Your task to perform on an android device: Add "lg ultragear" to the cart on bestbuy, then select checkout. Image 0: 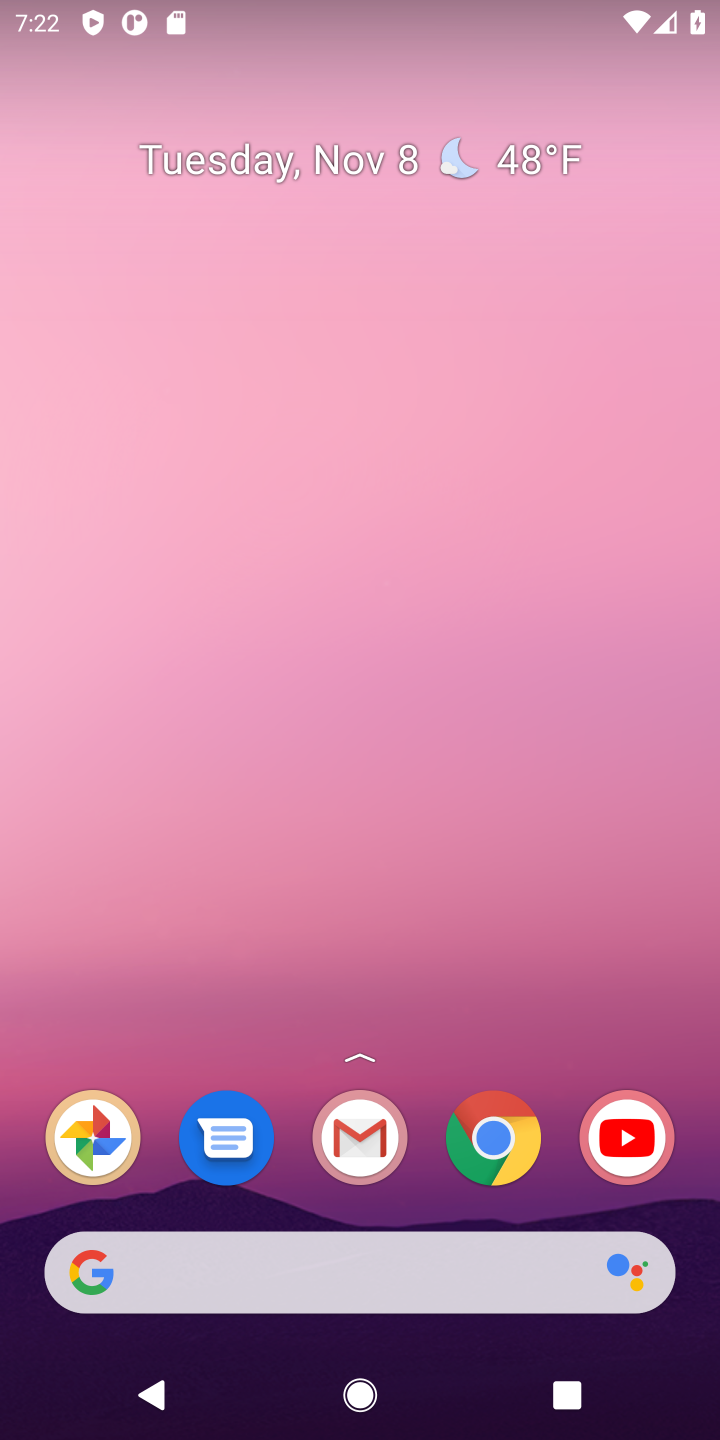
Step 0: click (492, 1133)
Your task to perform on an android device: Add "lg ultragear" to the cart on bestbuy, then select checkout. Image 1: 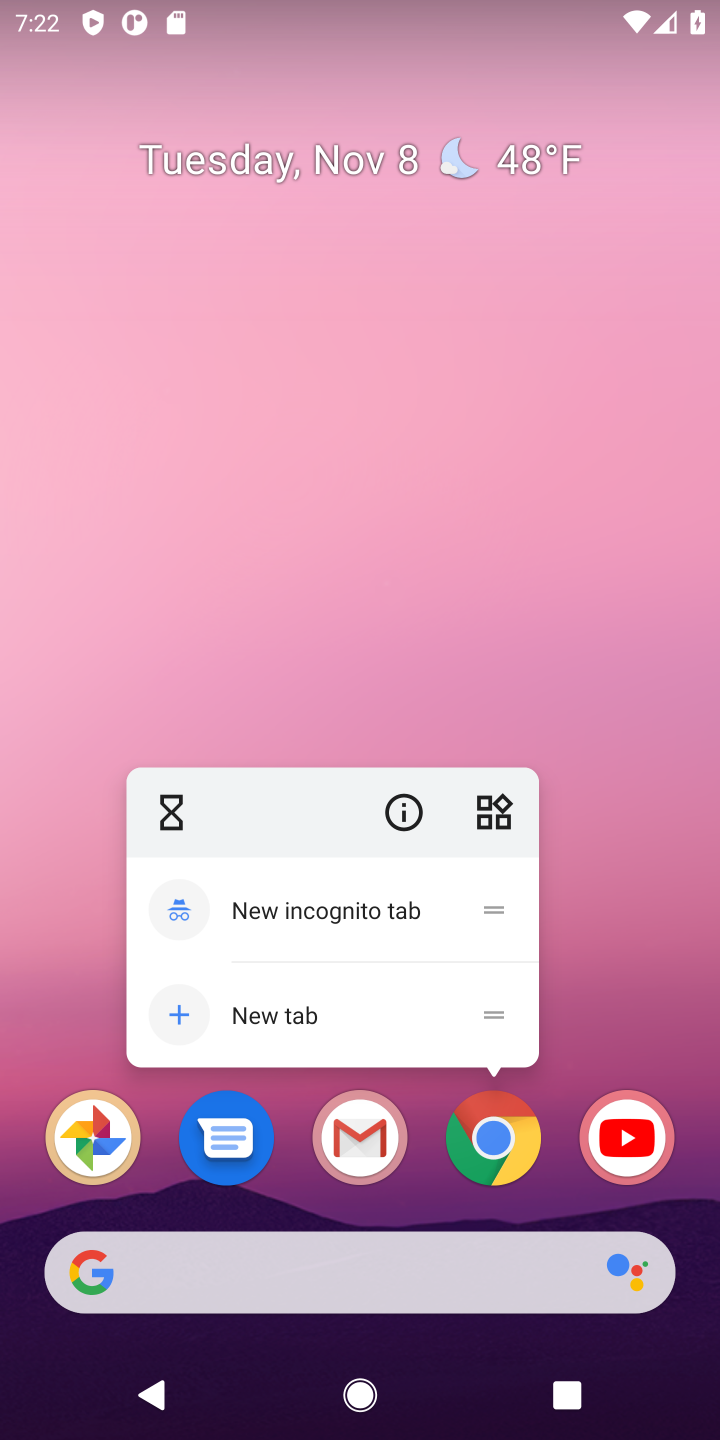
Step 1: click (492, 1142)
Your task to perform on an android device: Add "lg ultragear" to the cart on bestbuy, then select checkout. Image 2: 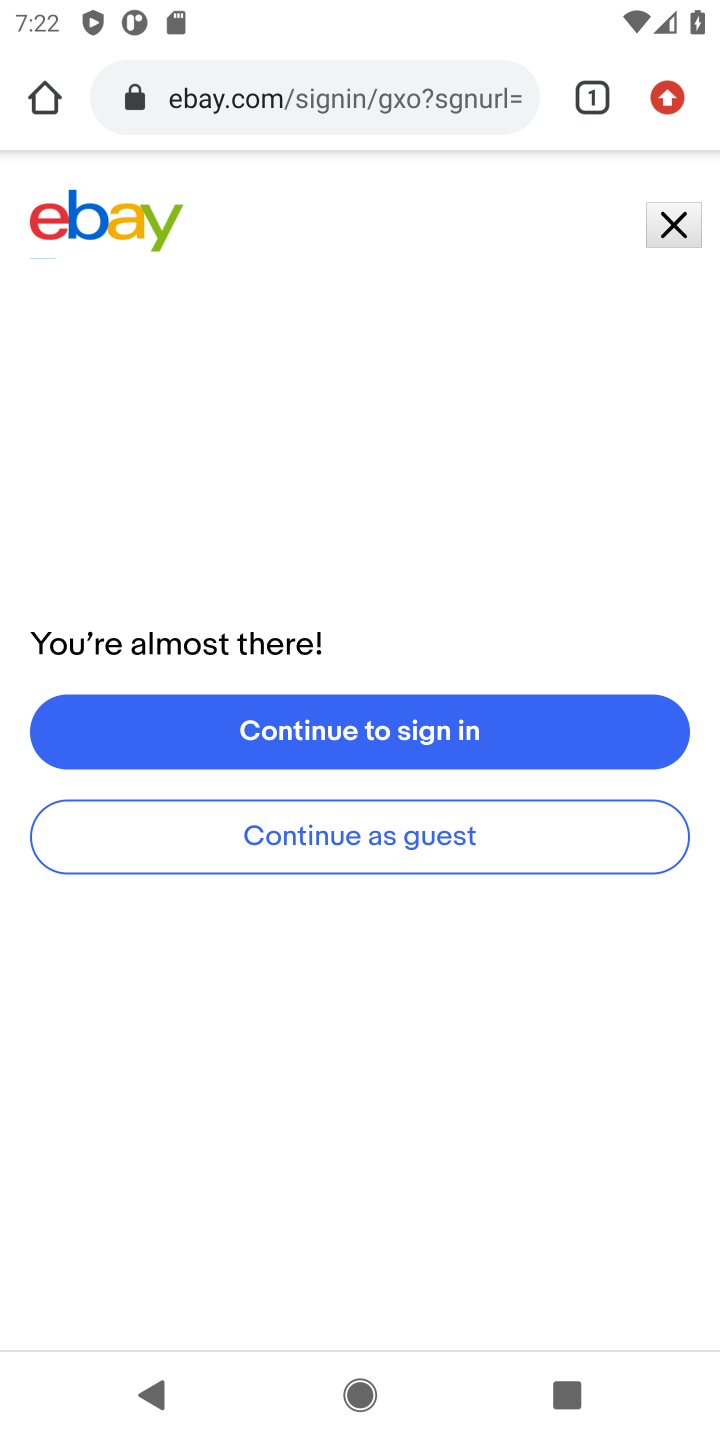
Step 2: click (304, 91)
Your task to perform on an android device: Add "lg ultragear" to the cart on bestbuy, then select checkout. Image 3: 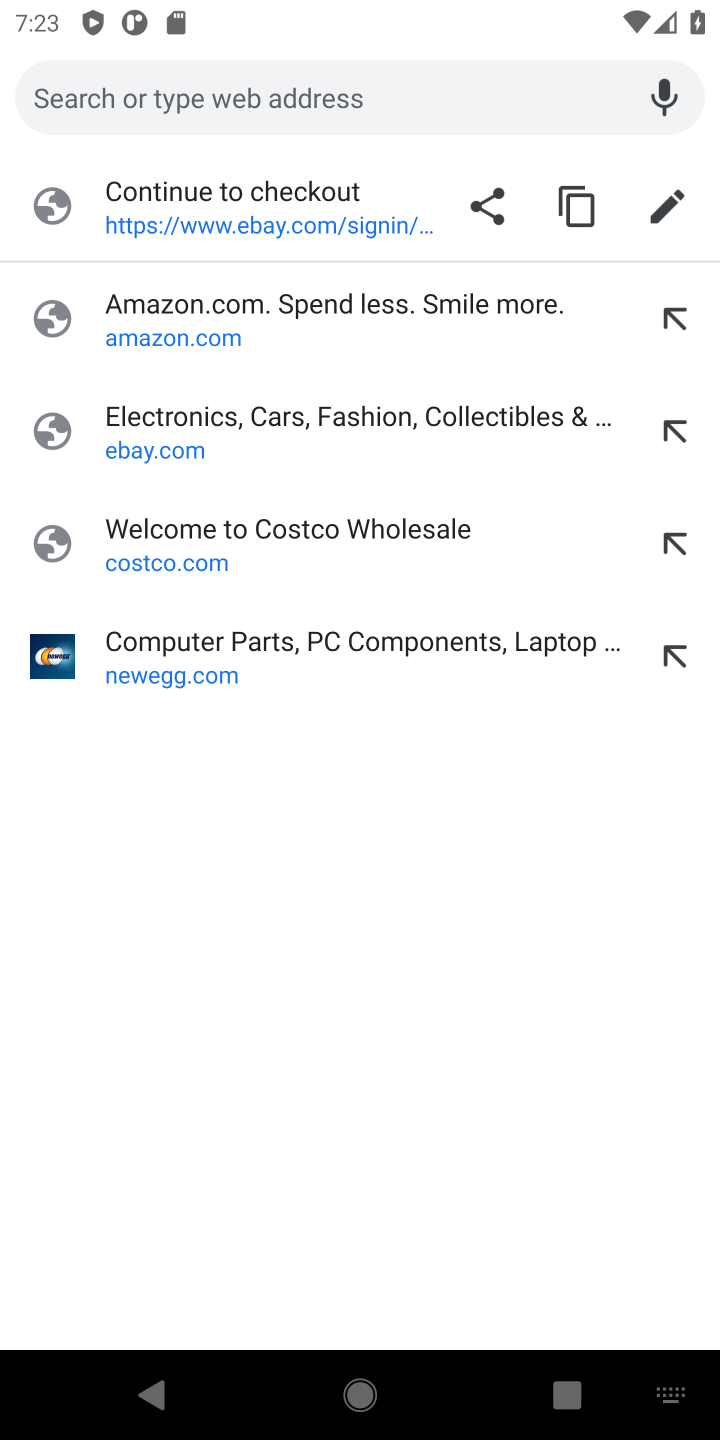
Step 3: type "bestbuy"
Your task to perform on an android device: Add "lg ultragear" to the cart on bestbuy, then select checkout. Image 4: 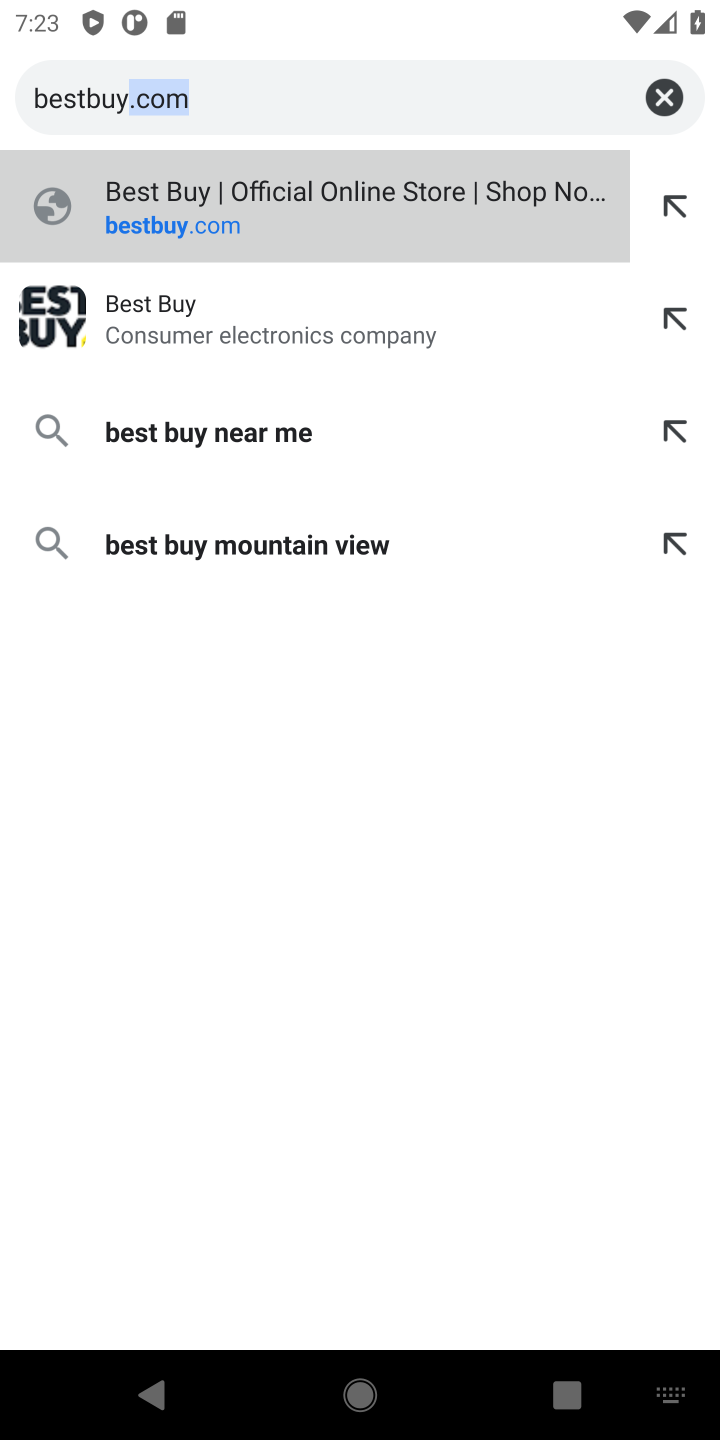
Step 4: press enter
Your task to perform on an android device: Add "lg ultragear" to the cart on bestbuy, then select checkout. Image 5: 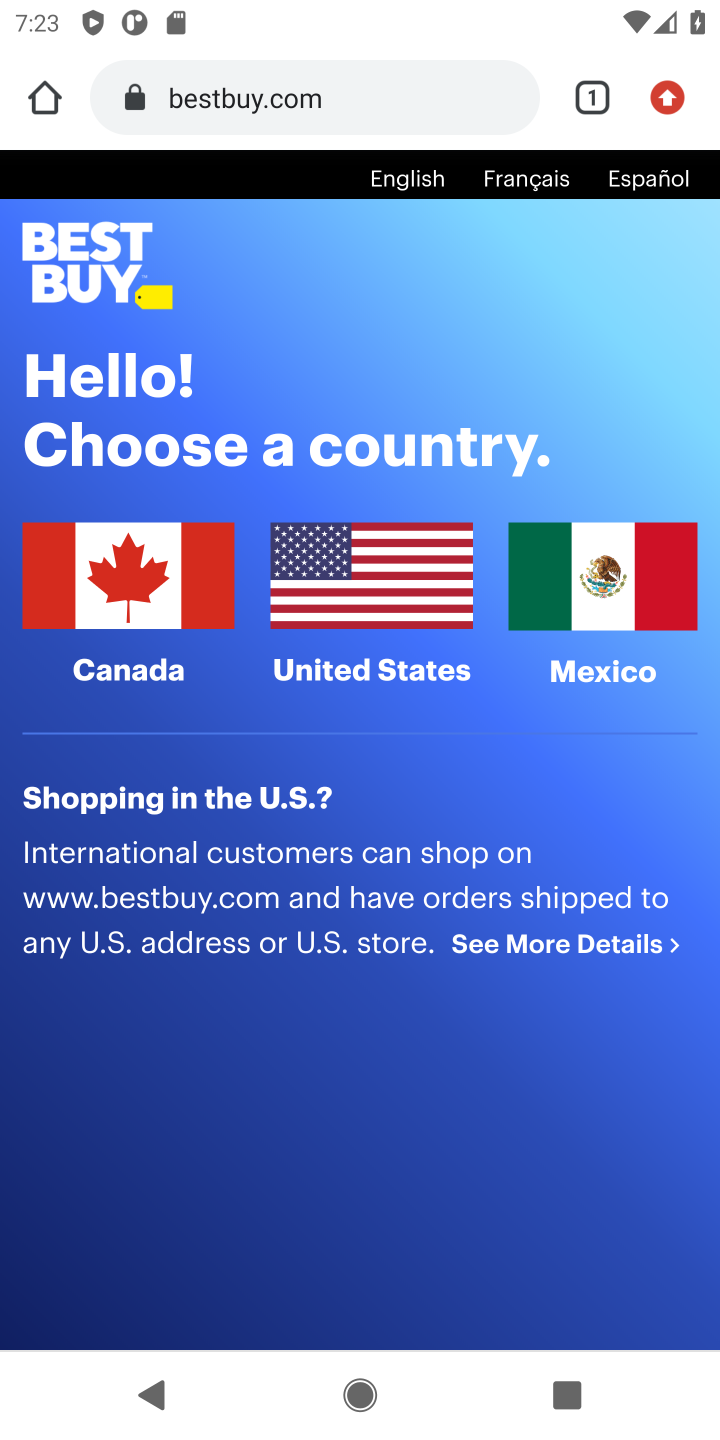
Step 5: click (118, 618)
Your task to perform on an android device: Add "lg ultragear" to the cart on bestbuy, then select checkout. Image 6: 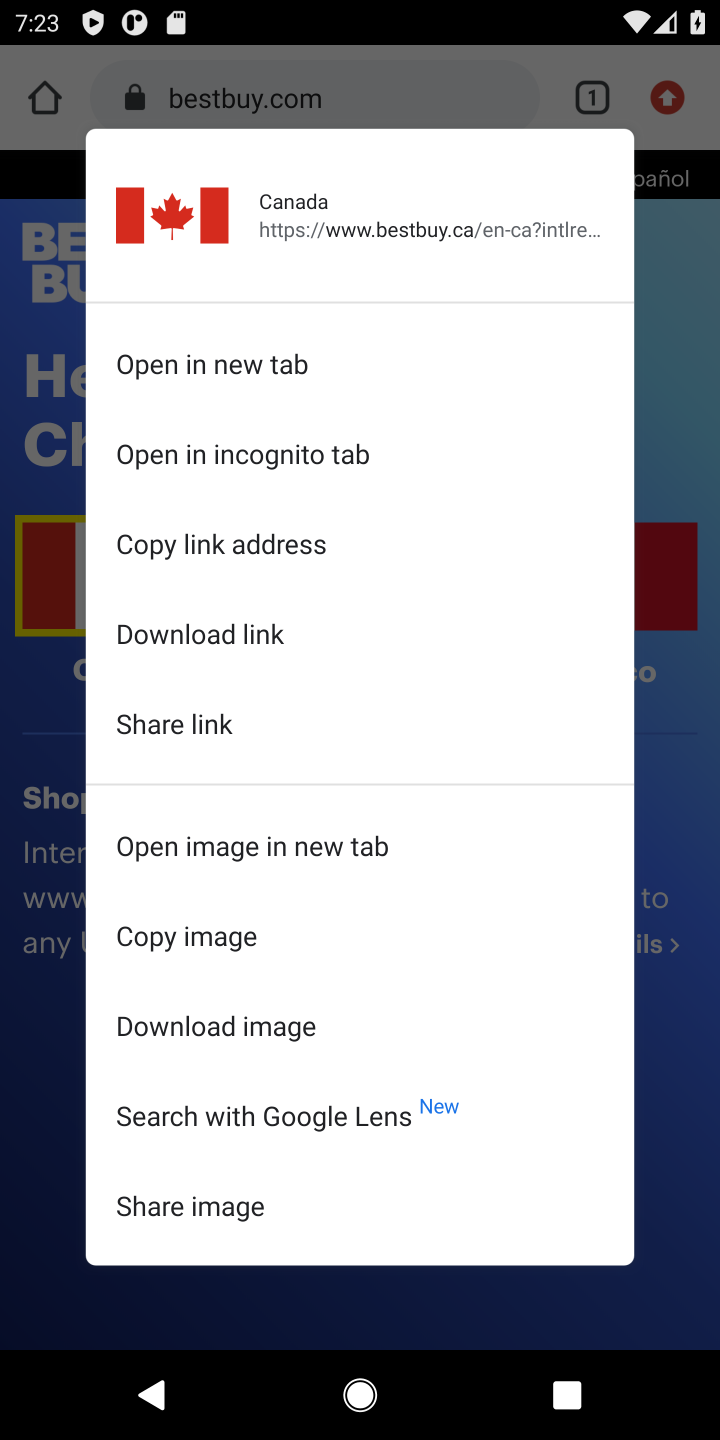
Step 6: click (45, 582)
Your task to perform on an android device: Add "lg ultragear" to the cart on bestbuy, then select checkout. Image 7: 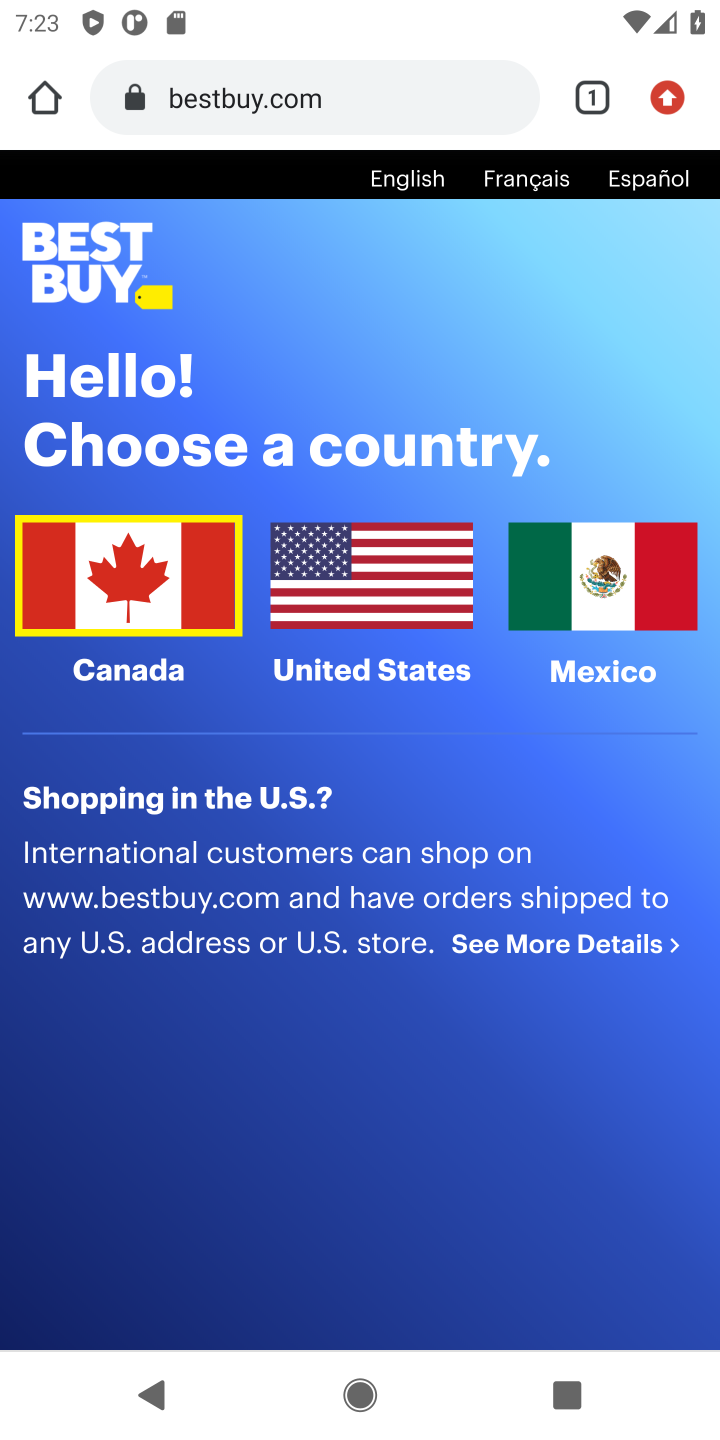
Step 7: click (140, 665)
Your task to perform on an android device: Add "lg ultragear" to the cart on bestbuy, then select checkout. Image 8: 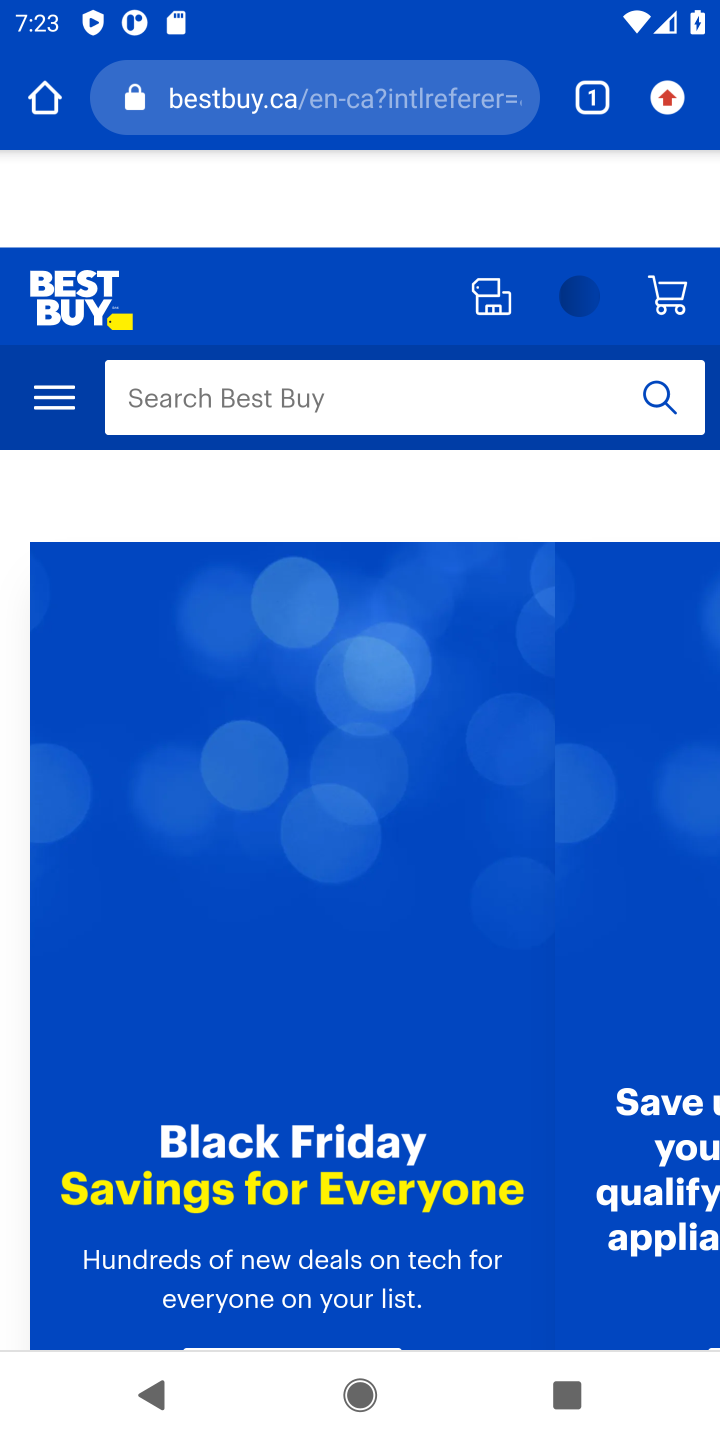
Step 8: click (258, 393)
Your task to perform on an android device: Add "lg ultragear" to the cart on bestbuy, then select checkout. Image 9: 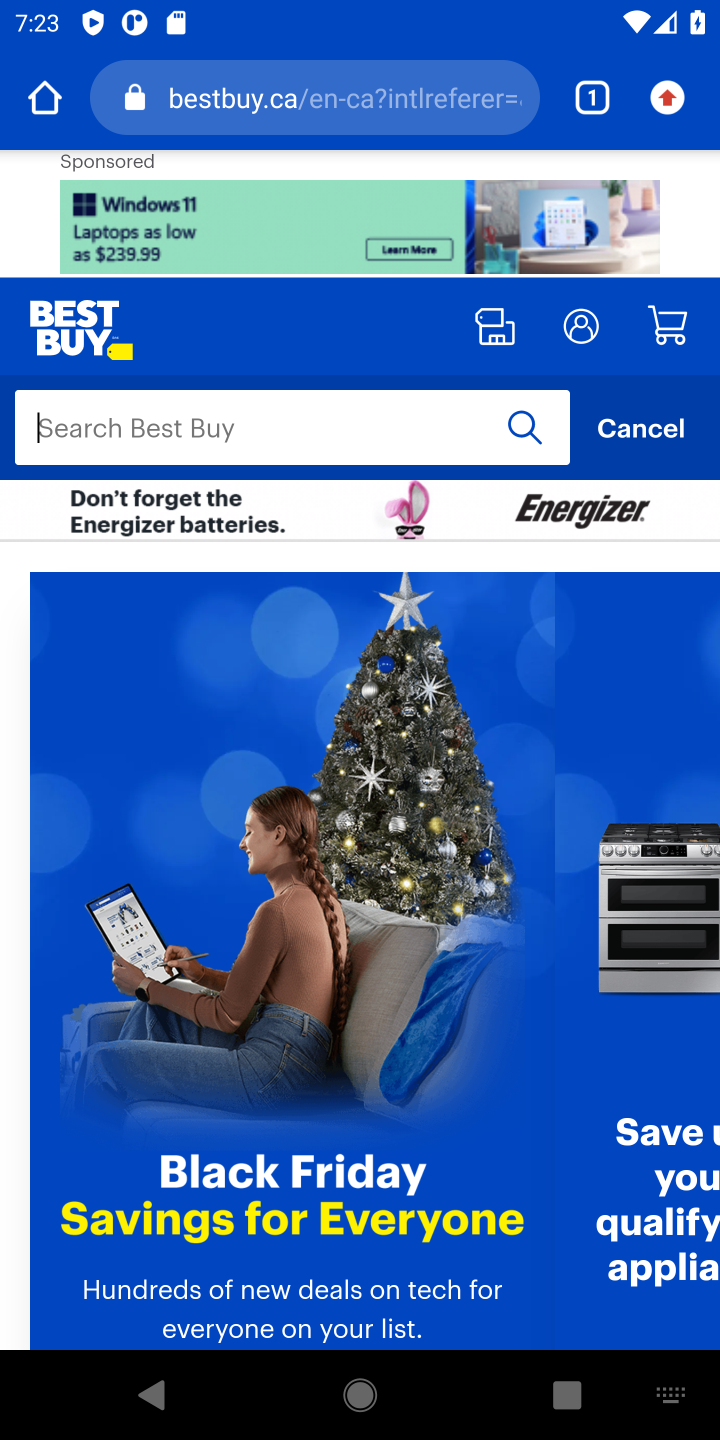
Step 9: press enter
Your task to perform on an android device: Add "lg ultragear" to the cart on bestbuy, then select checkout. Image 10: 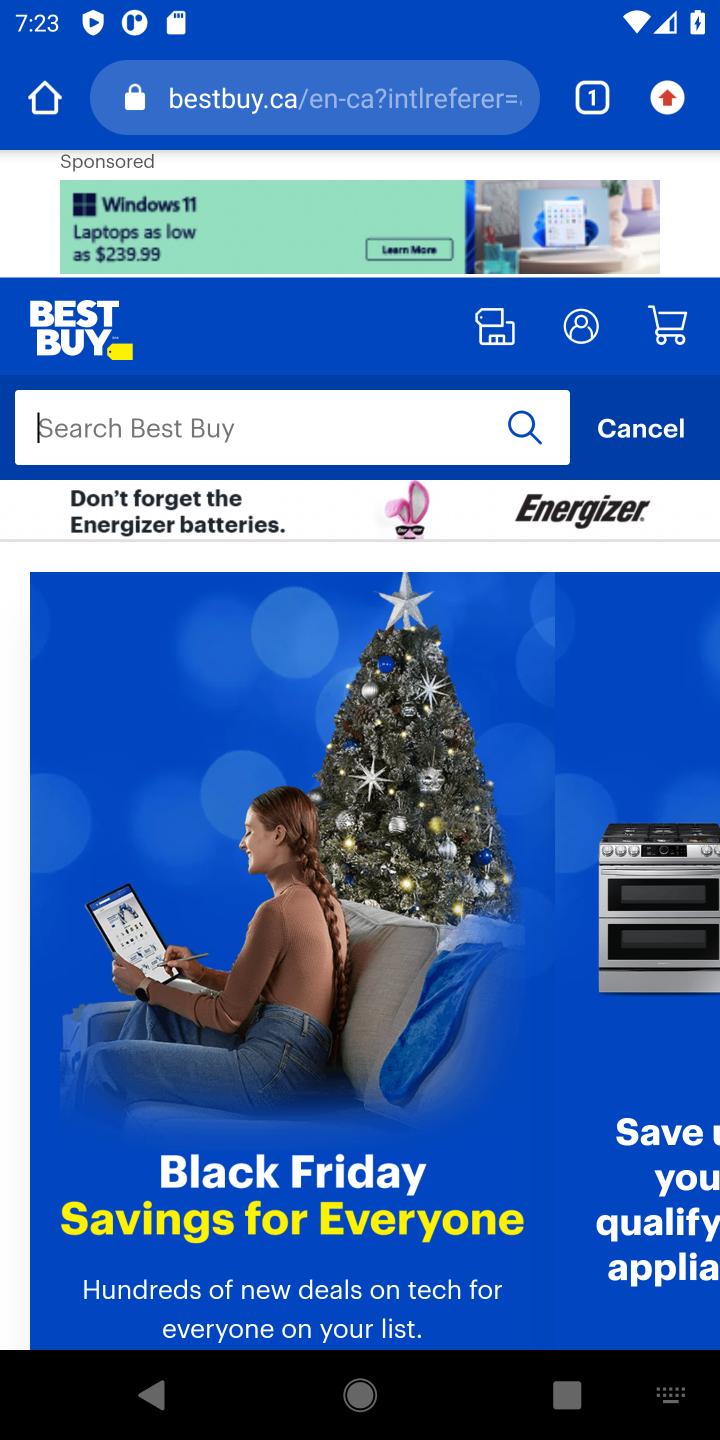
Step 10: type "lg ultragear"
Your task to perform on an android device: Add "lg ultragear" to the cart on bestbuy, then select checkout. Image 11: 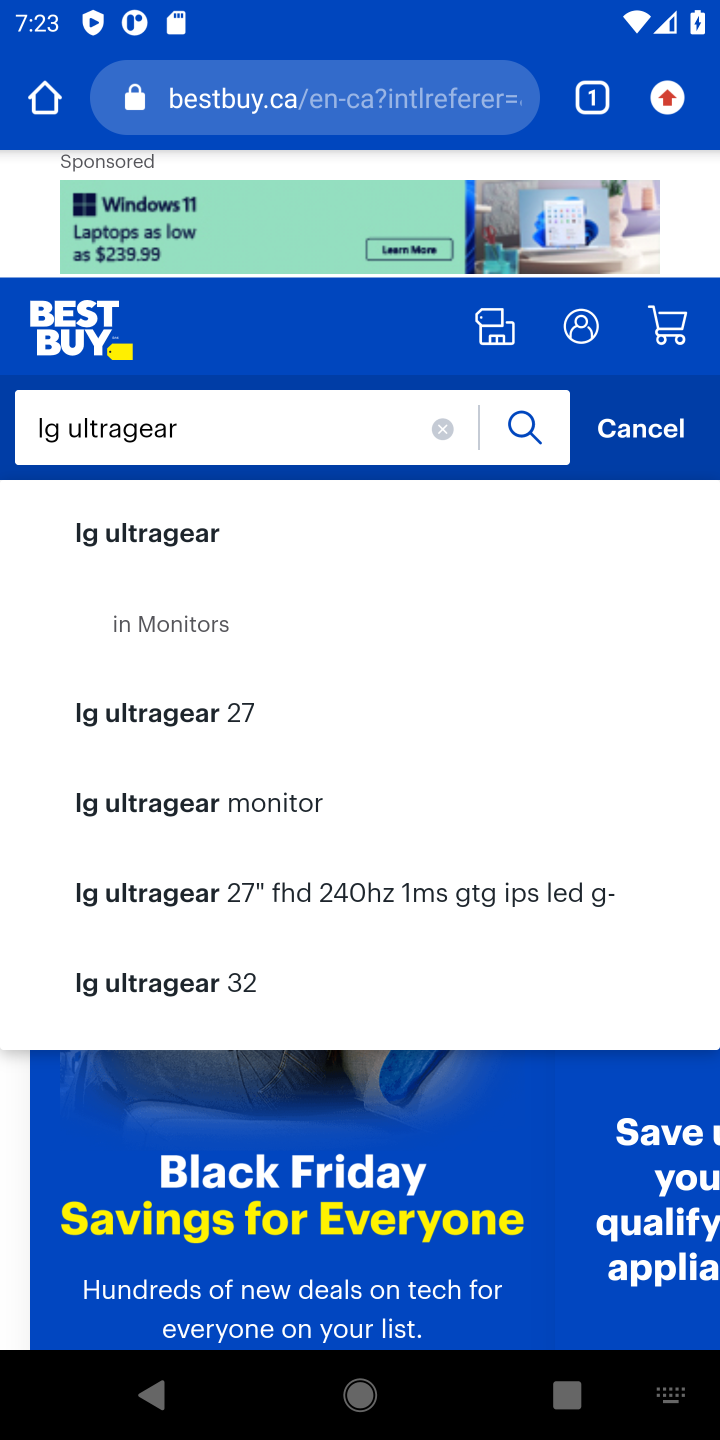
Step 11: press enter
Your task to perform on an android device: Add "lg ultragear" to the cart on bestbuy, then select checkout. Image 12: 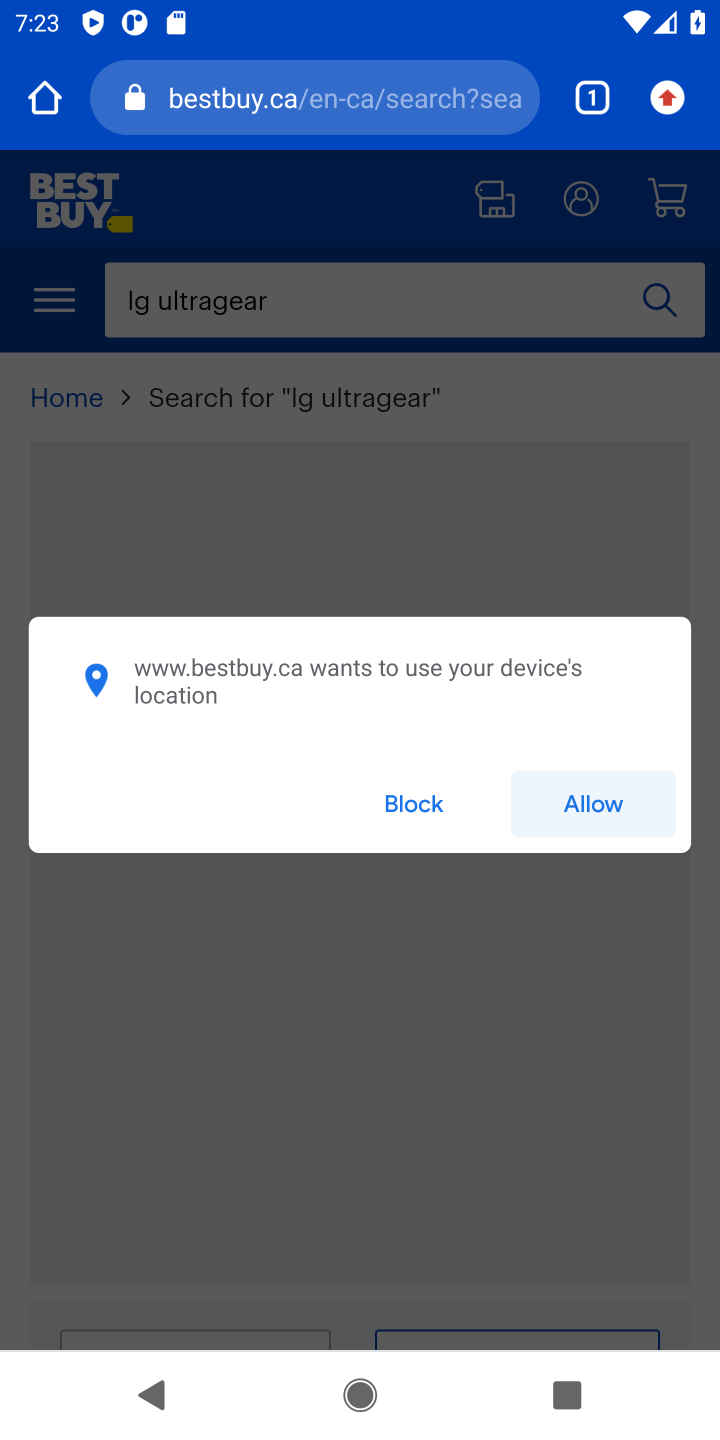
Step 12: click (416, 801)
Your task to perform on an android device: Add "lg ultragear" to the cart on bestbuy, then select checkout. Image 13: 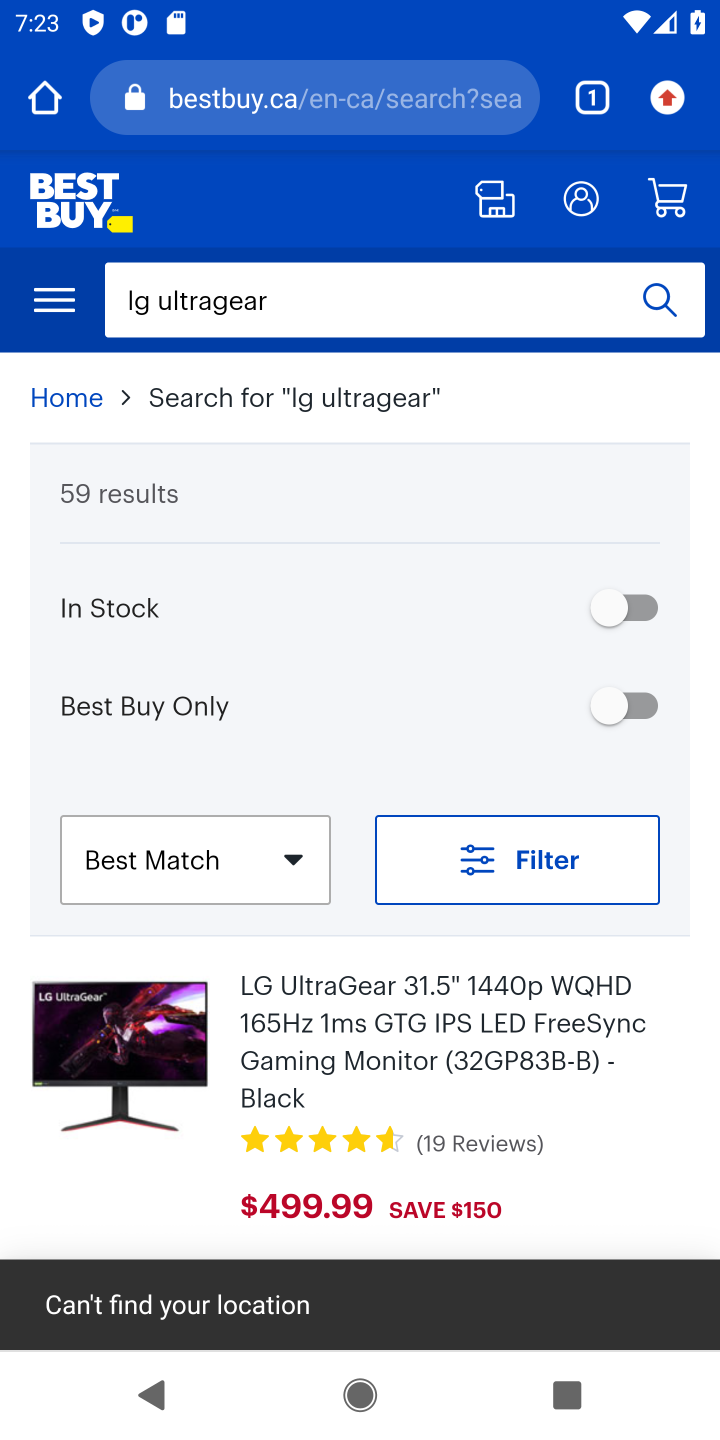
Step 13: drag from (268, 1114) to (424, 574)
Your task to perform on an android device: Add "lg ultragear" to the cart on bestbuy, then select checkout. Image 14: 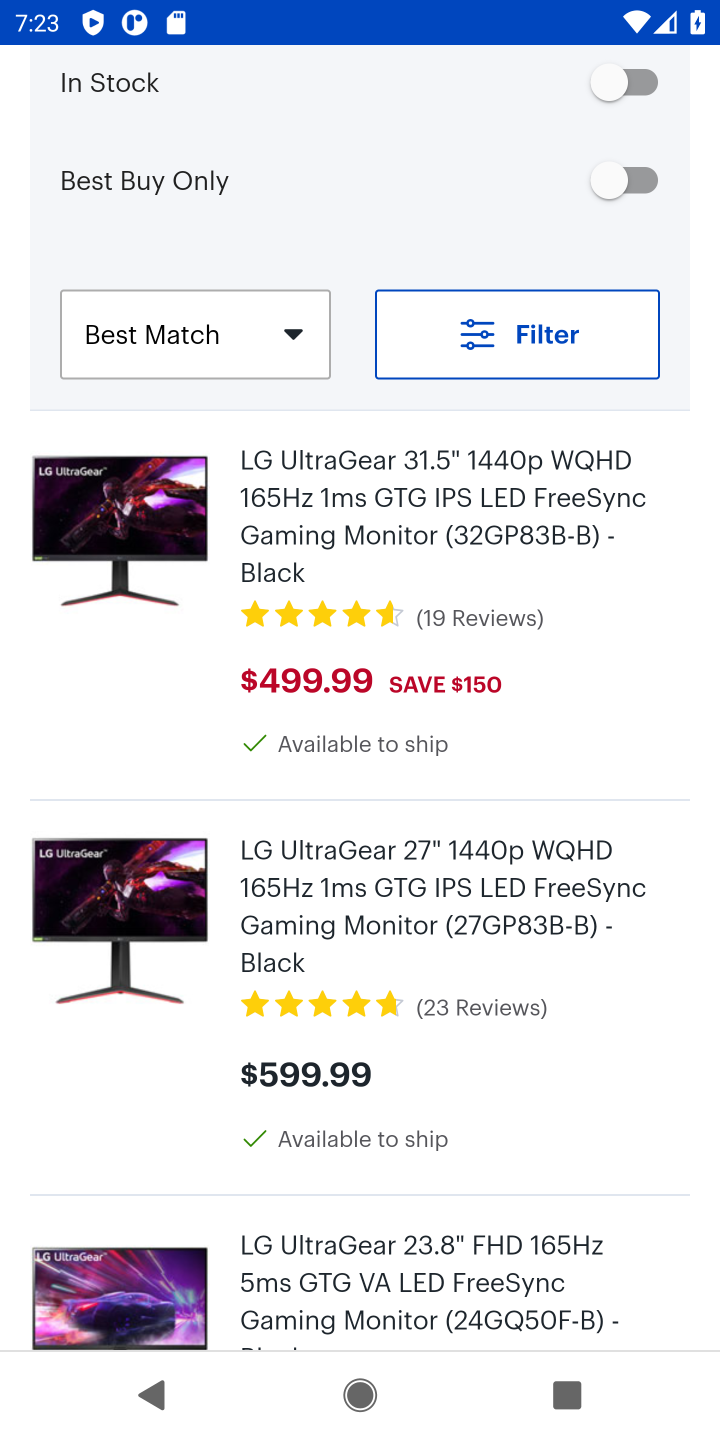
Step 14: click (388, 536)
Your task to perform on an android device: Add "lg ultragear" to the cart on bestbuy, then select checkout. Image 15: 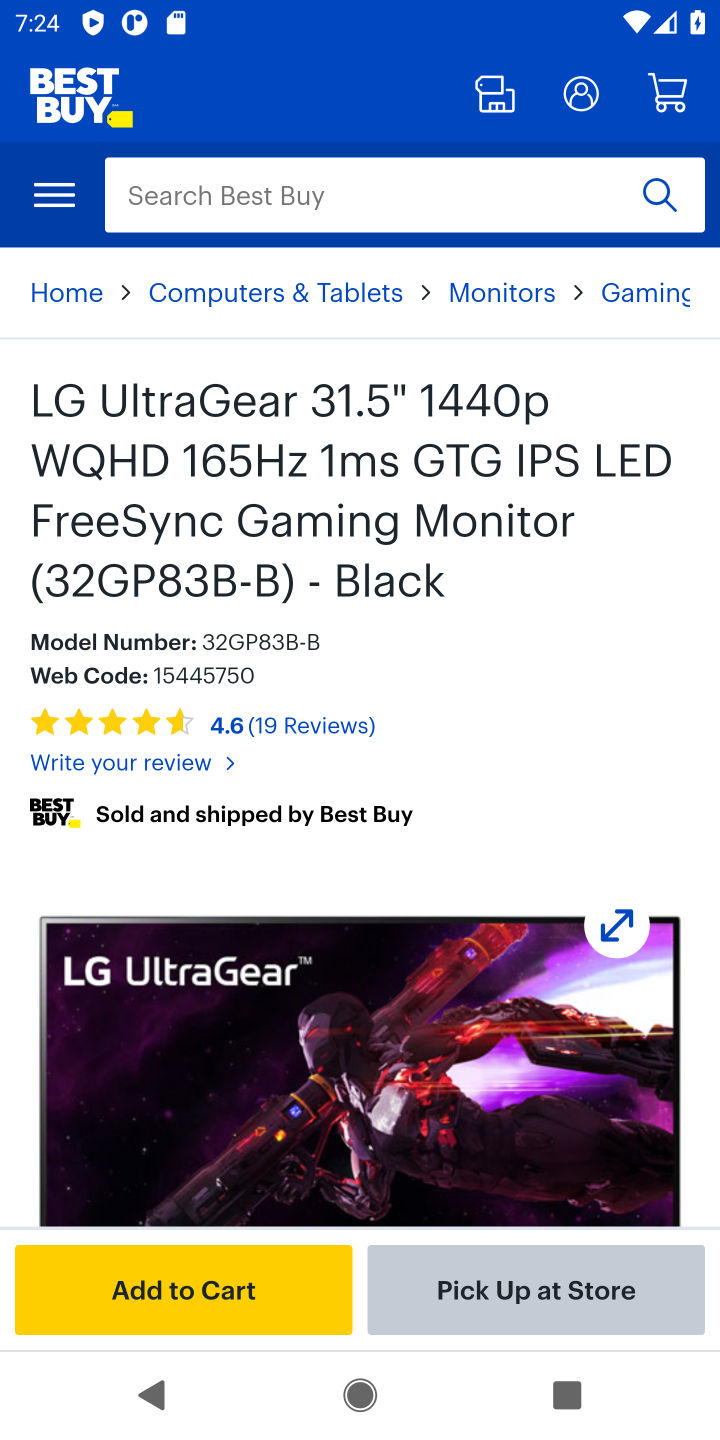
Step 15: drag from (299, 1091) to (590, 233)
Your task to perform on an android device: Add "lg ultragear" to the cart on bestbuy, then select checkout. Image 16: 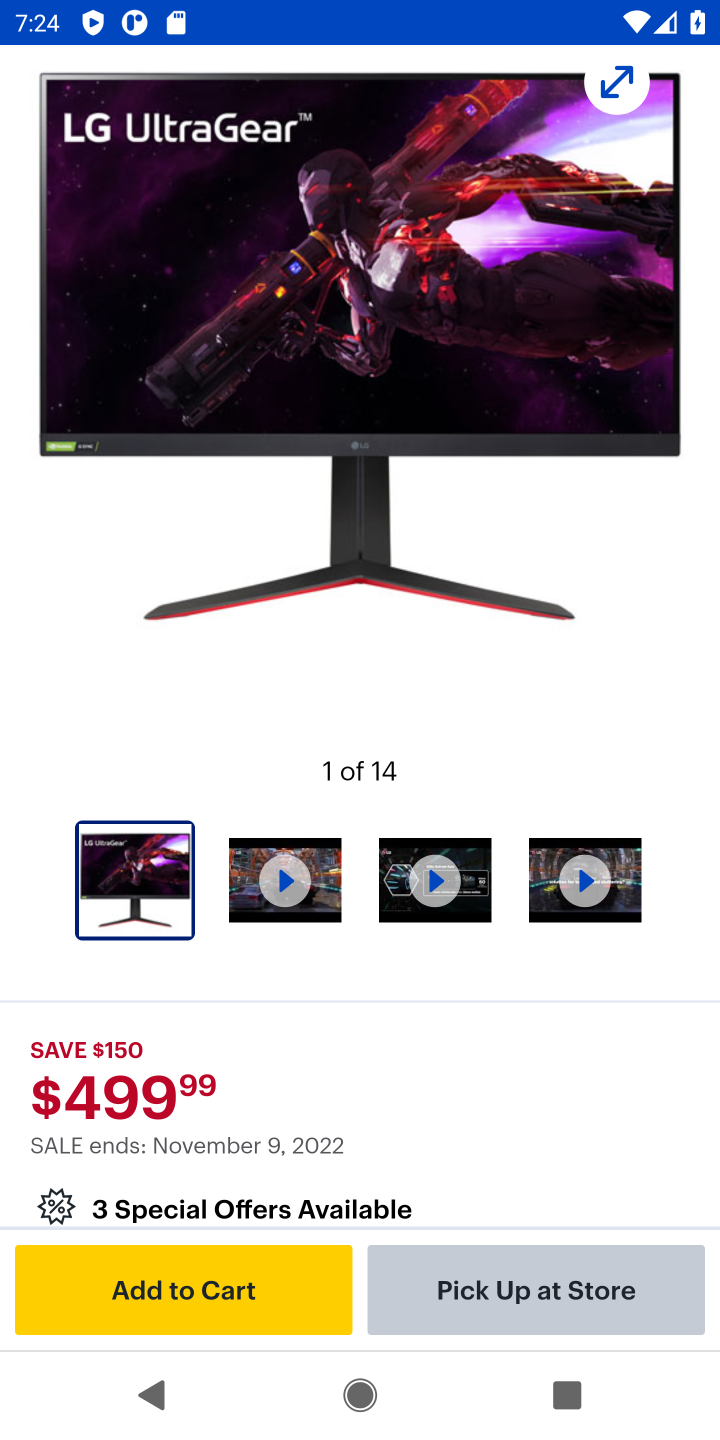
Step 16: drag from (371, 1116) to (450, 642)
Your task to perform on an android device: Add "lg ultragear" to the cart on bestbuy, then select checkout. Image 17: 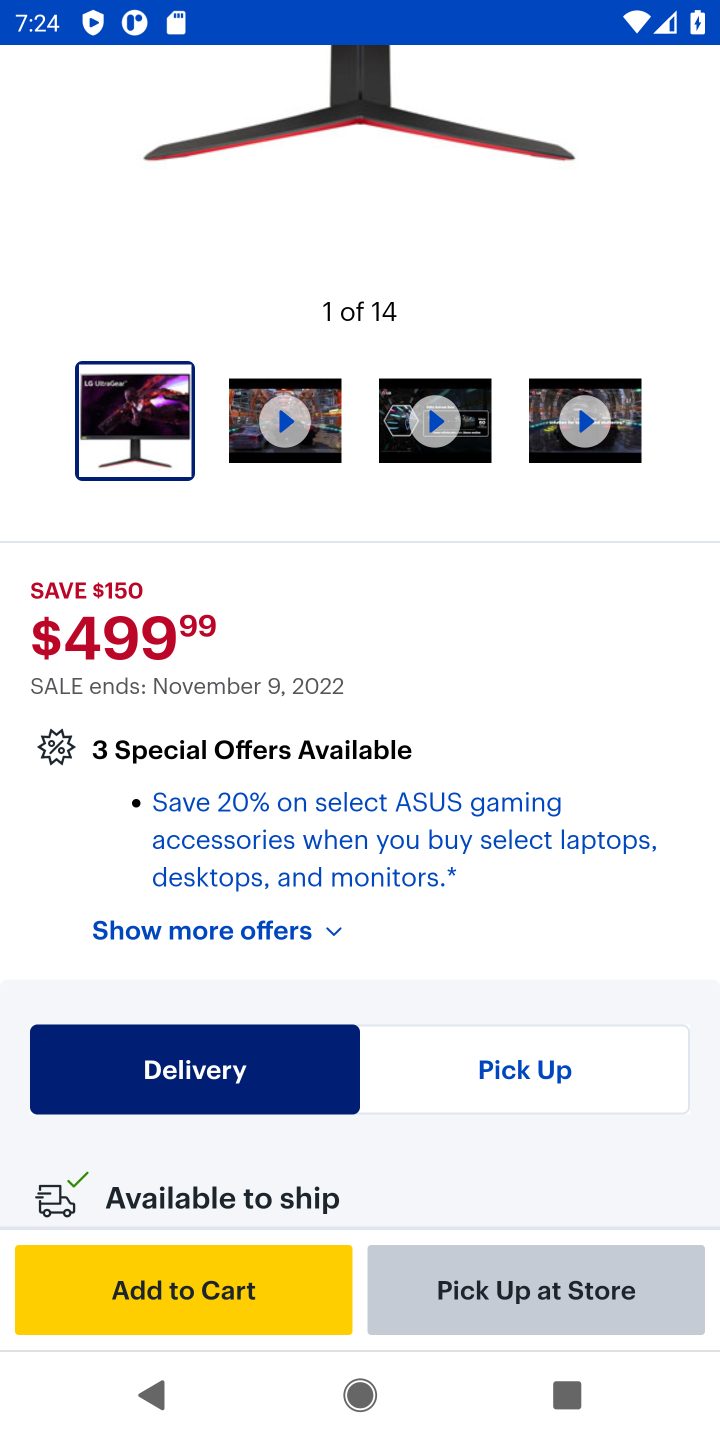
Step 17: click (188, 1287)
Your task to perform on an android device: Add "lg ultragear" to the cart on bestbuy, then select checkout. Image 18: 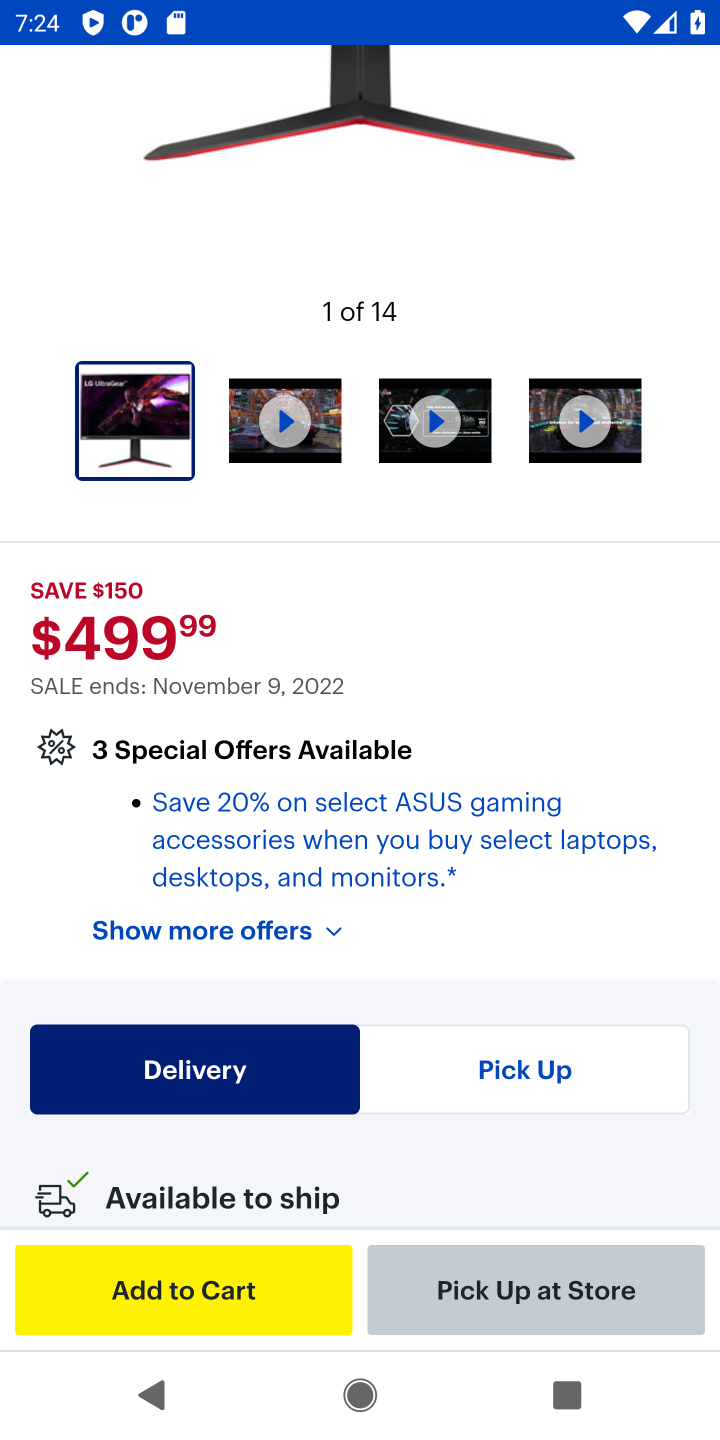
Step 18: click (211, 1283)
Your task to perform on an android device: Add "lg ultragear" to the cart on bestbuy, then select checkout. Image 19: 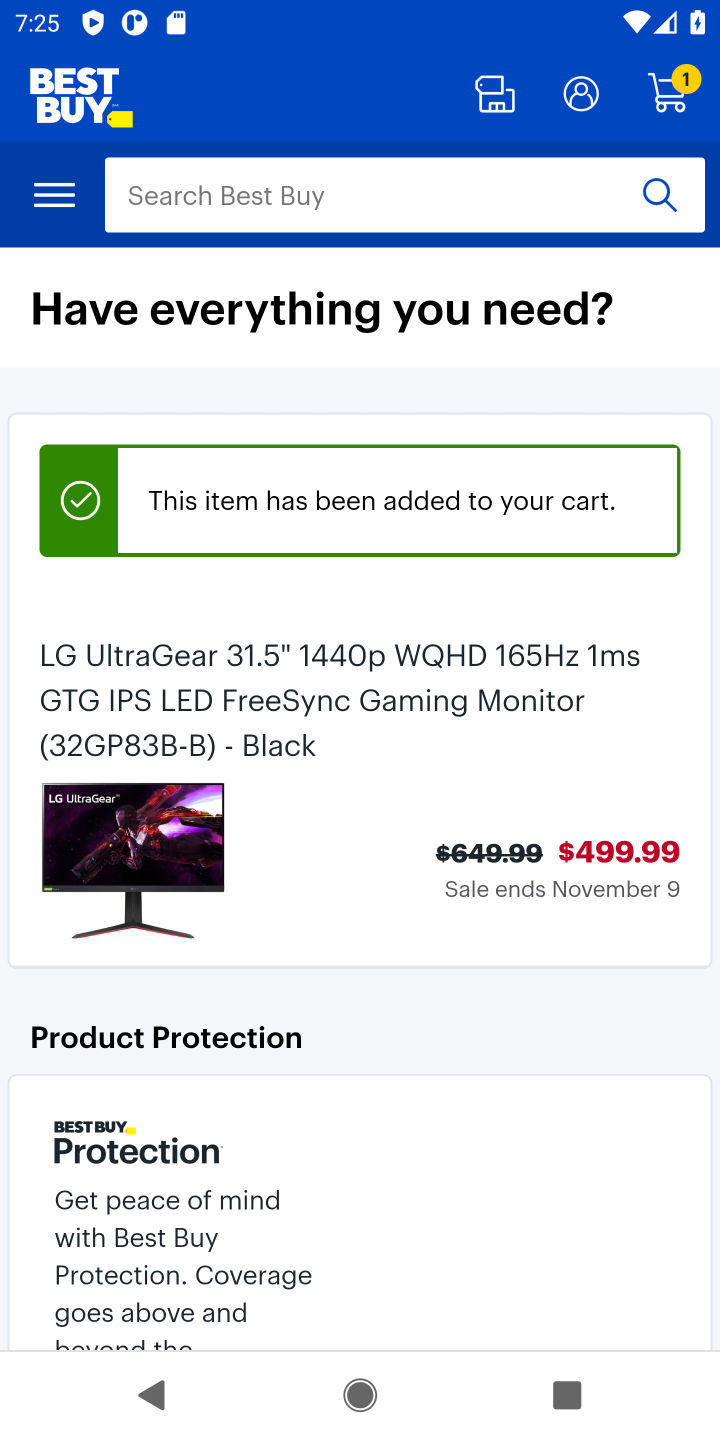
Step 19: drag from (296, 1187) to (573, 270)
Your task to perform on an android device: Add "lg ultragear" to the cart on bestbuy, then select checkout. Image 20: 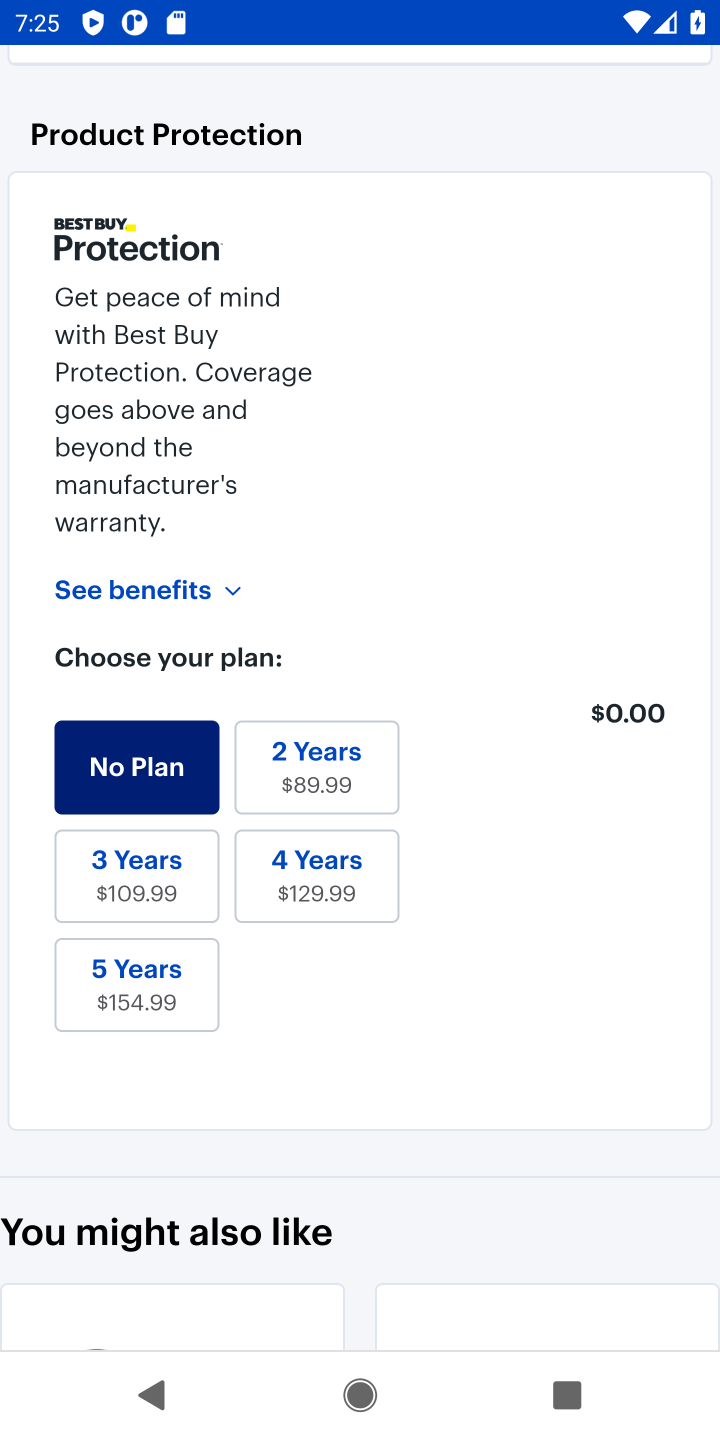
Step 20: drag from (477, 1066) to (627, 108)
Your task to perform on an android device: Add "lg ultragear" to the cart on bestbuy, then select checkout. Image 21: 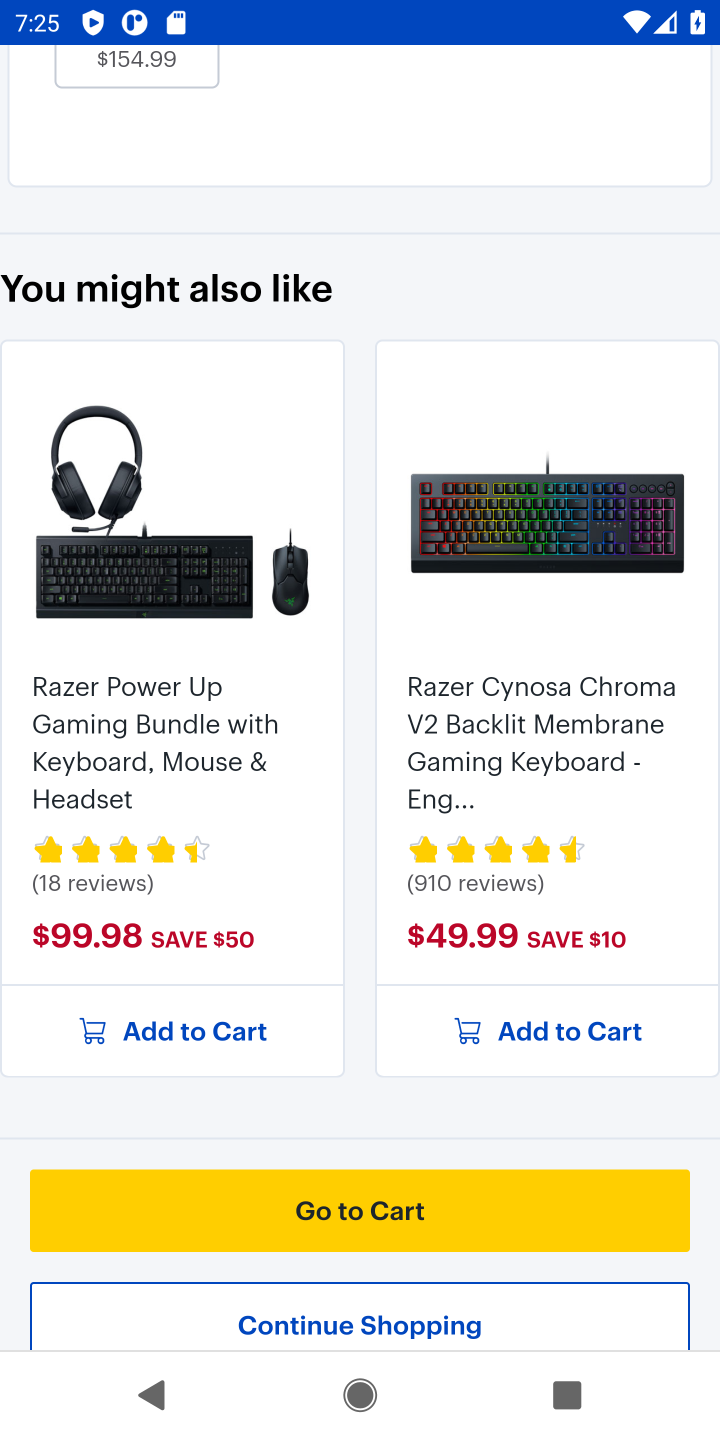
Step 21: click (376, 1219)
Your task to perform on an android device: Add "lg ultragear" to the cart on bestbuy, then select checkout. Image 22: 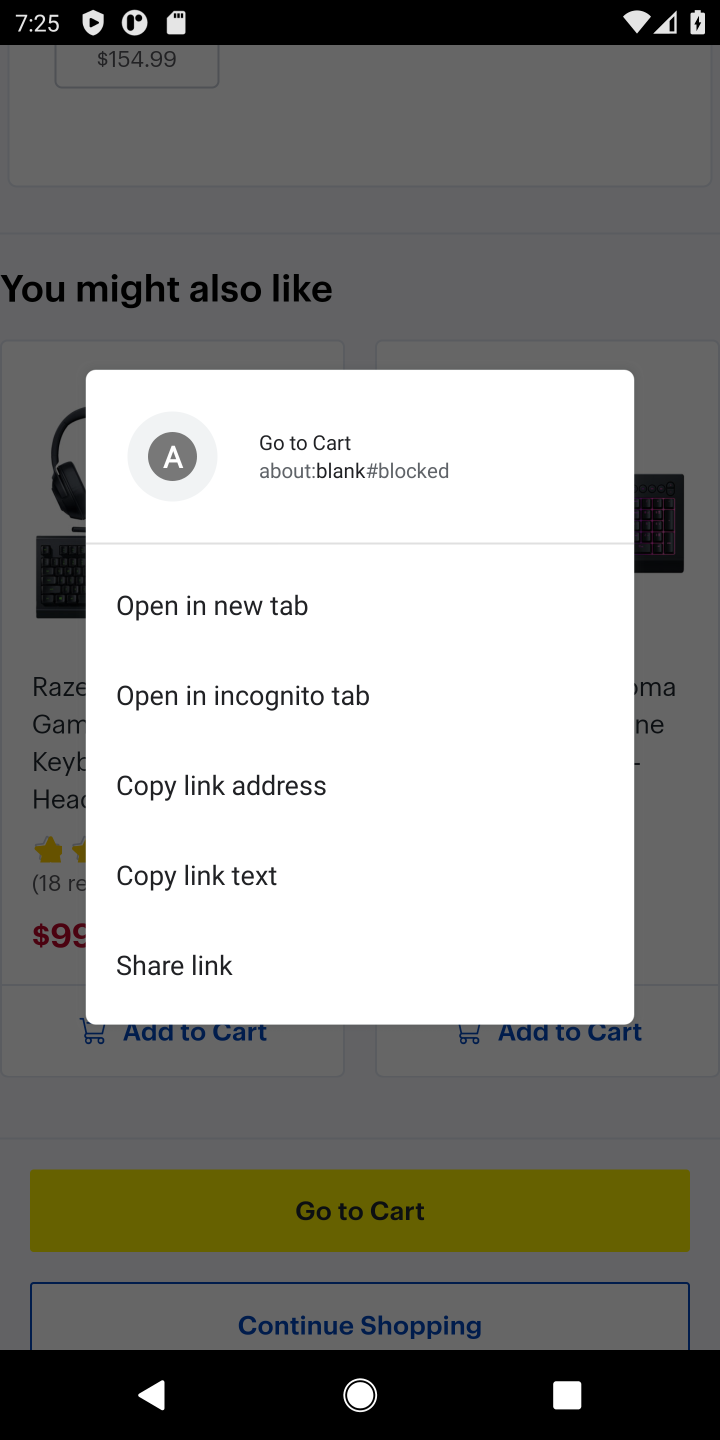
Step 22: click (337, 1220)
Your task to perform on an android device: Add "lg ultragear" to the cart on bestbuy, then select checkout. Image 23: 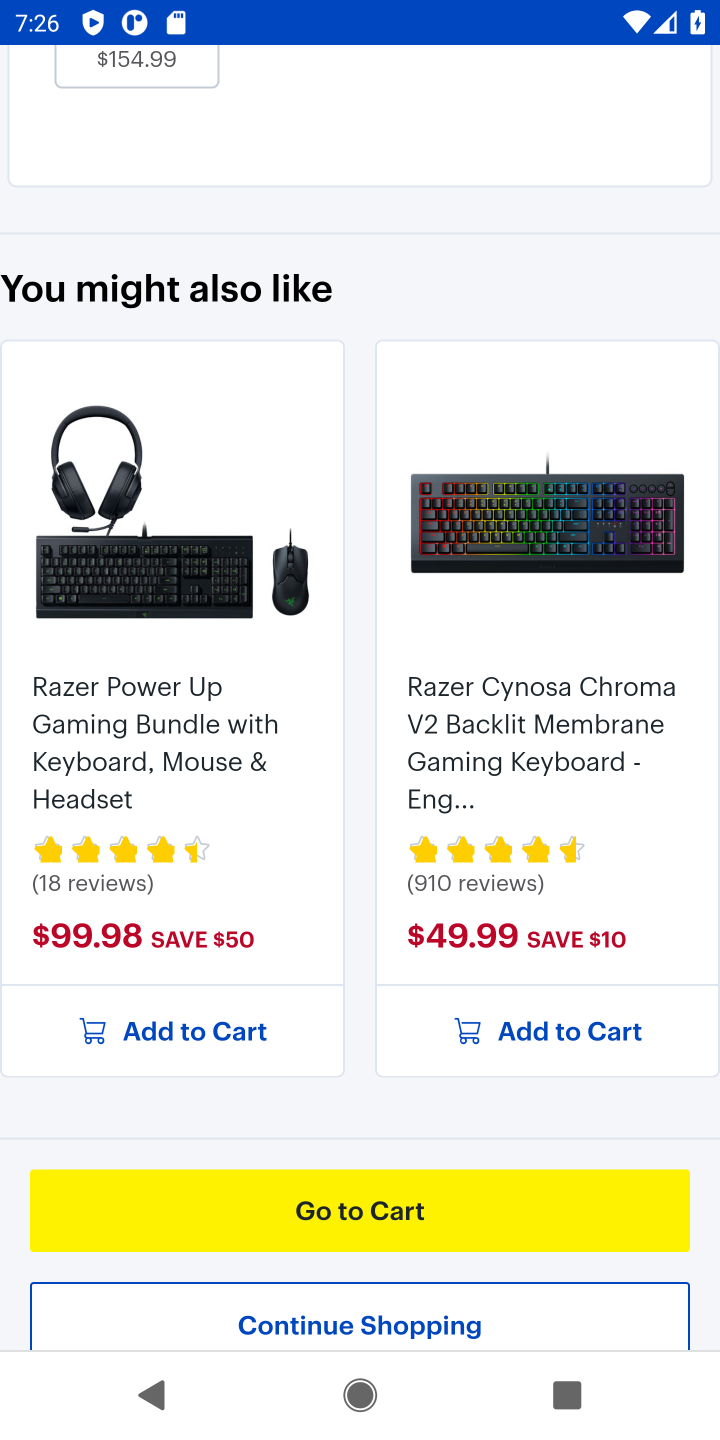
Step 23: click (367, 1202)
Your task to perform on an android device: Add "lg ultragear" to the cart on bestbuy, then select checkout. Image 24: 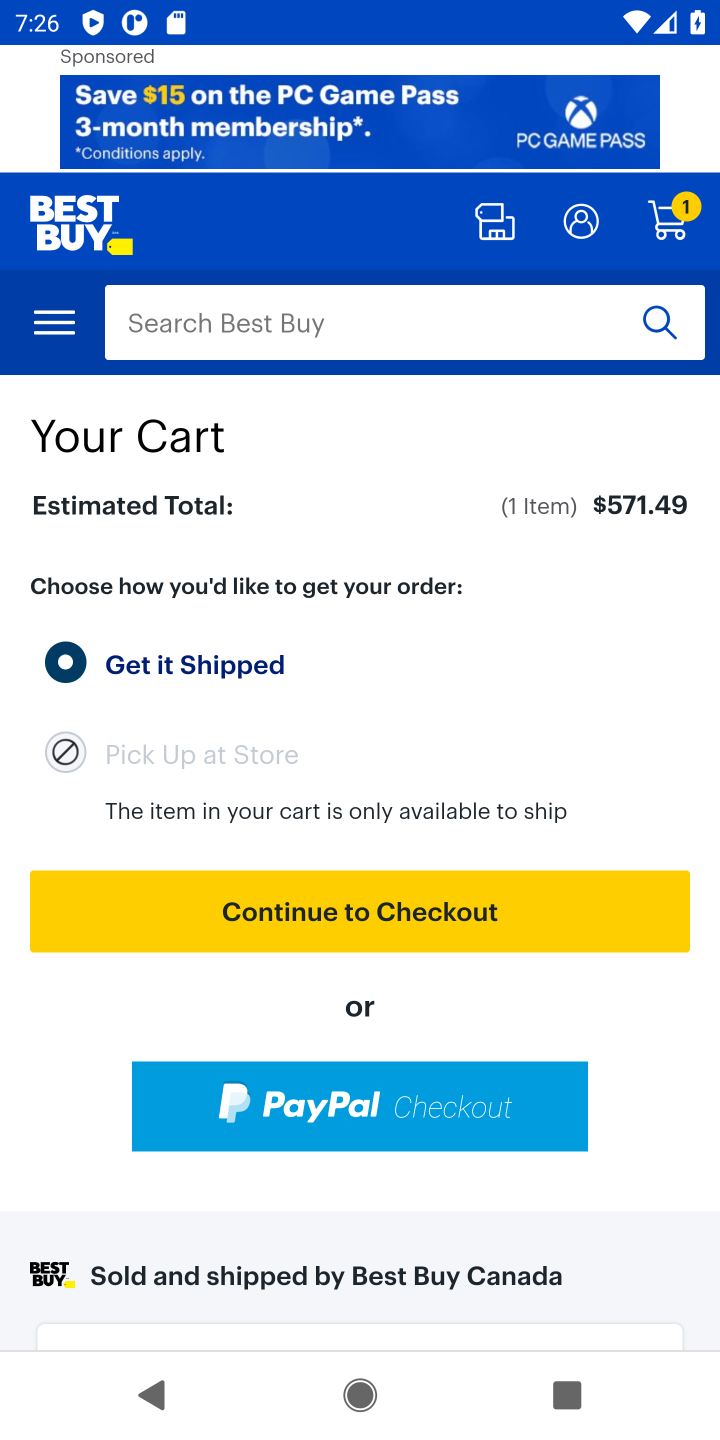
Step 24: drag from (431, 1291) to (550, 627)
Your task to perform on an android device: Add "lg ultragear" to the cart on bestbuy, then select checkout. Image 25: 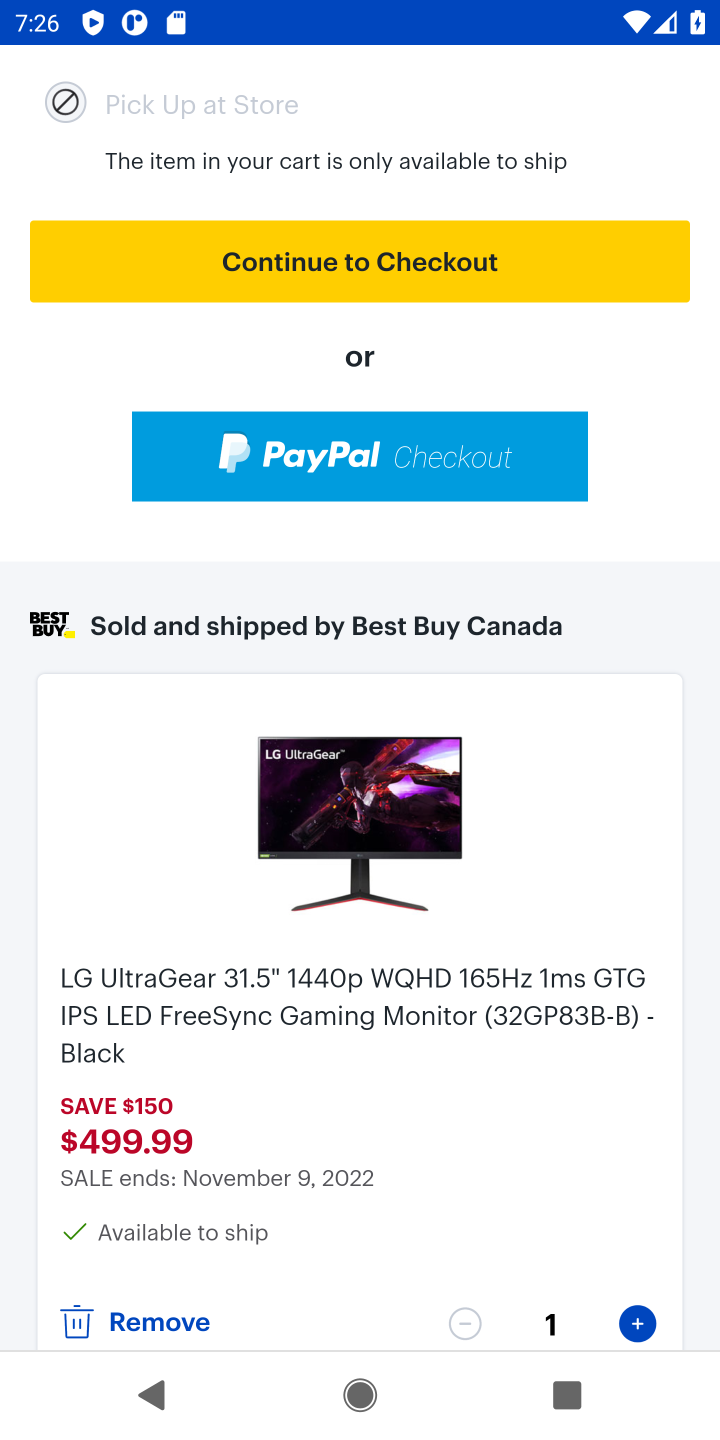
Step 25: click (403, 266)
Your task to perform on an android device: Add "lg ultragear" to the cart on bestbuy, then select checkout. Image 26: 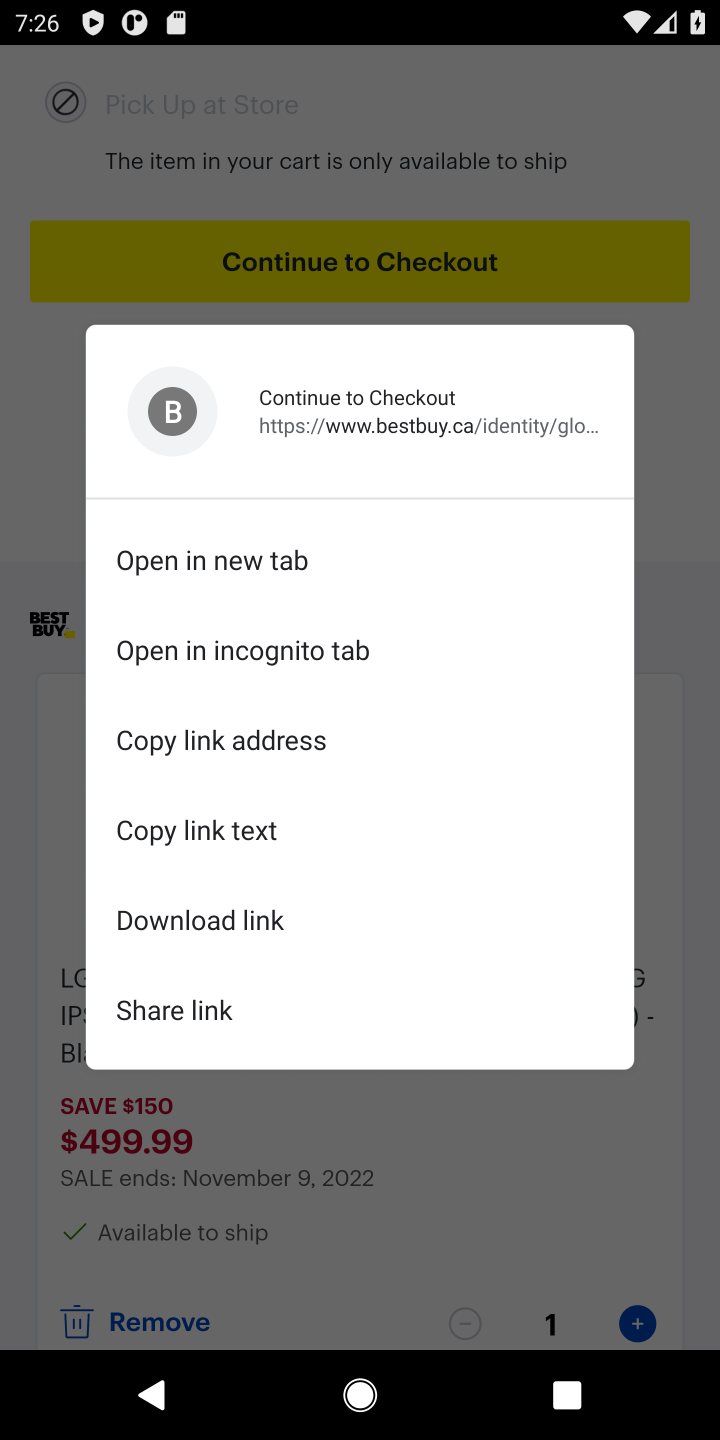
Step 26: click (399, 261)
Your task to perform on an android device: Add "lg ultragear" to the cart on bestbuy, then select checkout. Image 27: 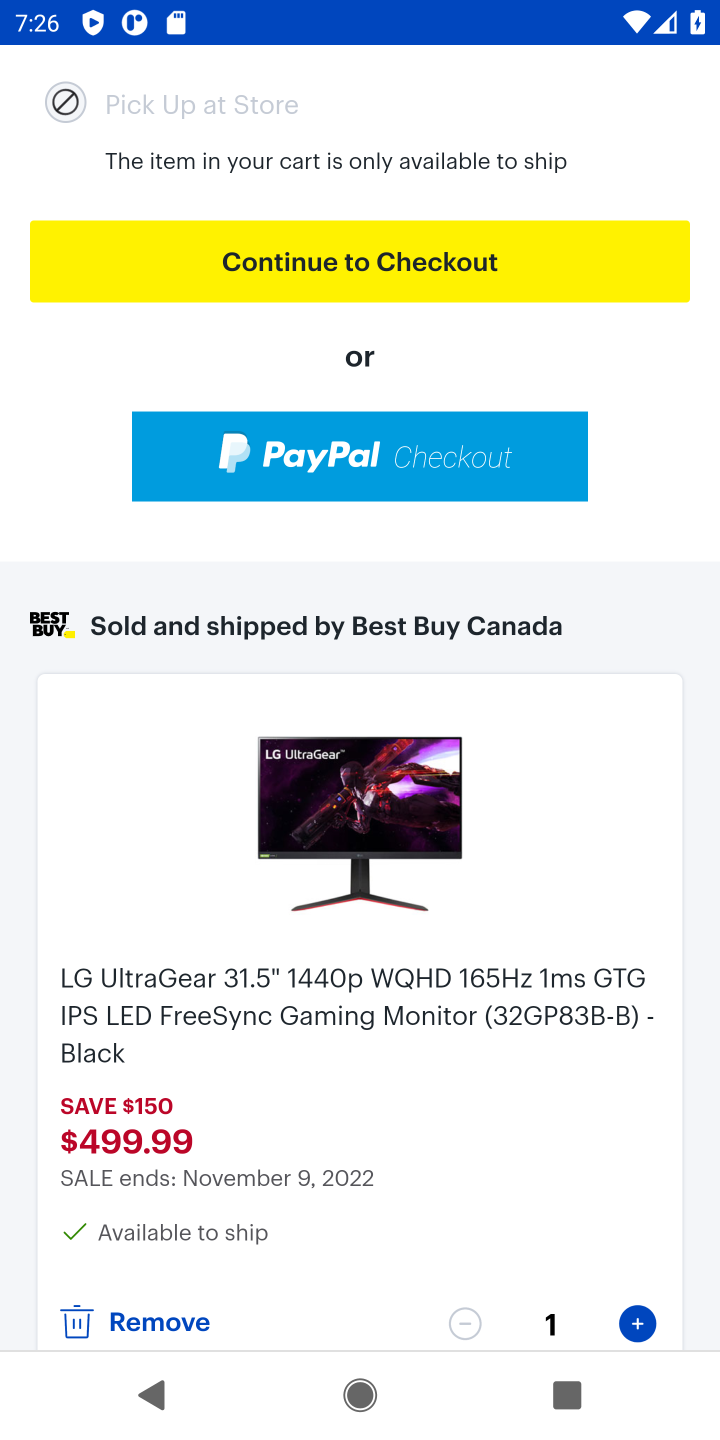
Step 27: click (354, 258)
Your task to perform on an android device: Add "lg ultragear" to the cart on bestbuy, then select checkout. Image 28: 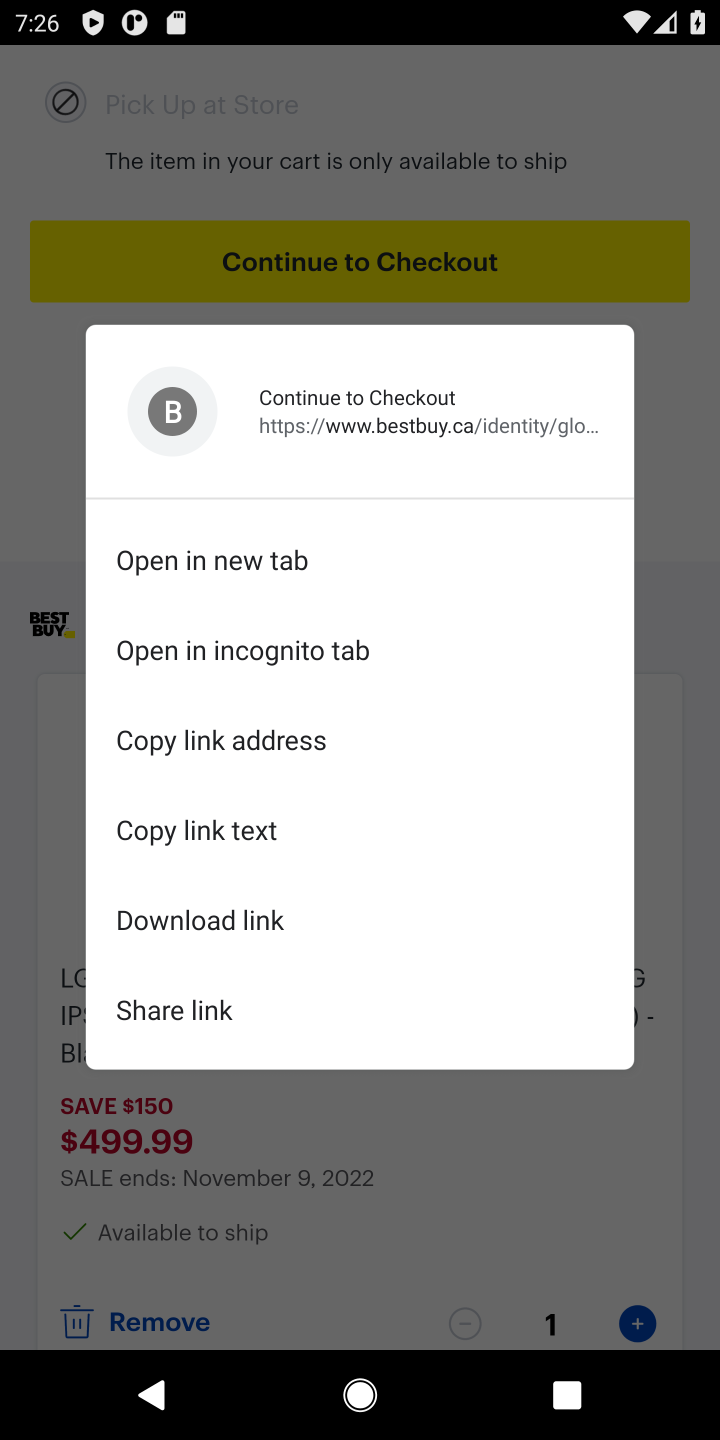
Step 28: click (425, 253)
Your task to perform on an android device: Add "lg ultragear" to the cart on bestbuy, then select checkout. Image 29: 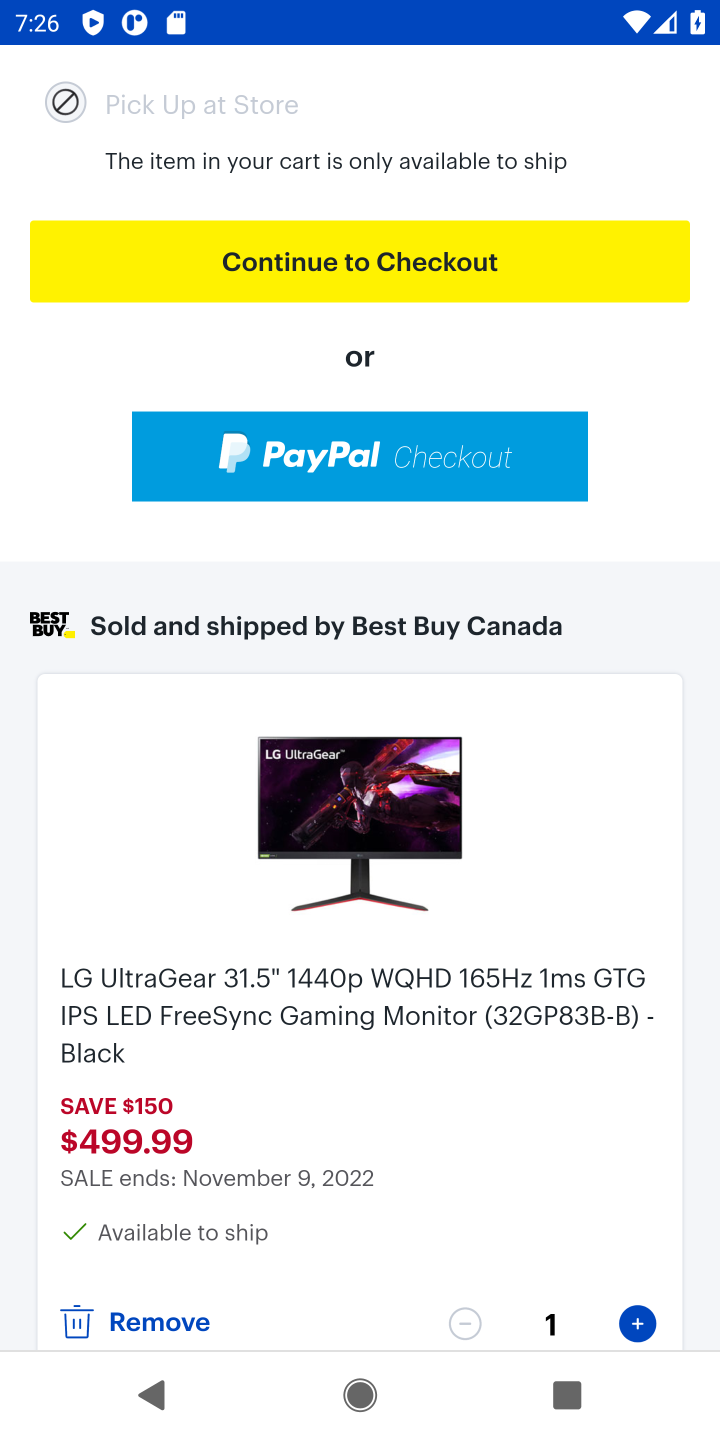
Step 29: click (379, 255)
Your task to perform on an android device: Add "lg ultragear" to the cart on bestbuy, then select checkout. Image 30: 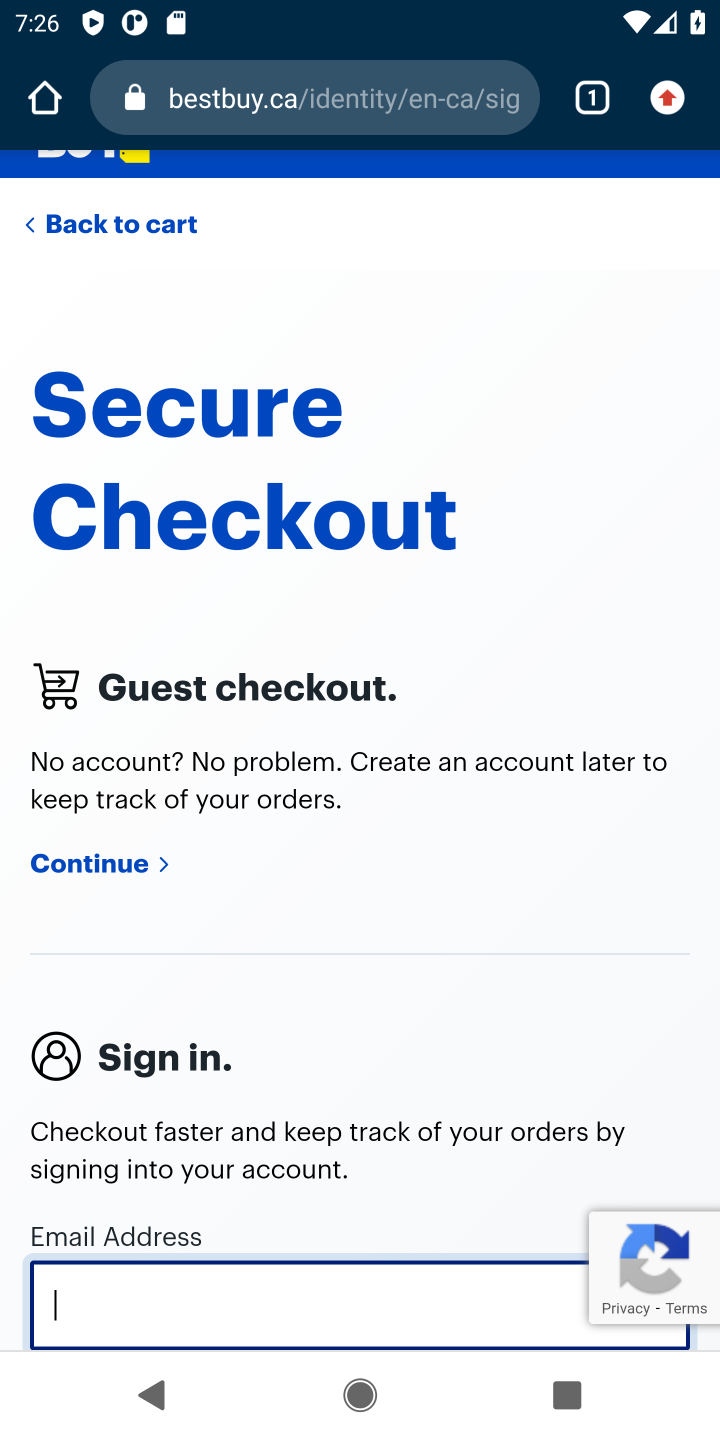
Step 30: task complete